Your task to perform on an android device: turn off notifications settings in the gmail app Image 0: 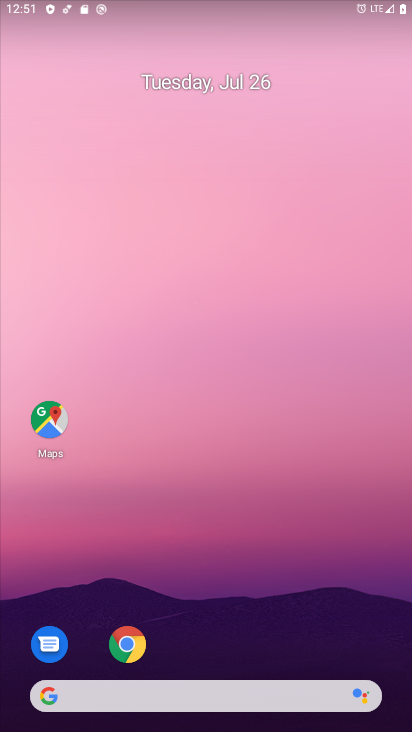
Step 0: drag from (181, 620) to (213, 148)
Your task to perform on an android device: turn off notifications settings in the gmail app Image 1: 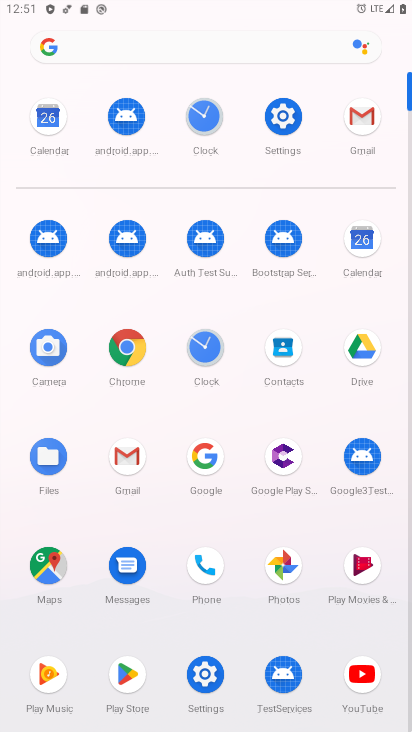
Step 1: click (139, 465)
Your task to perform on an android device: turn off notifications settings in the gmail app Image 2: 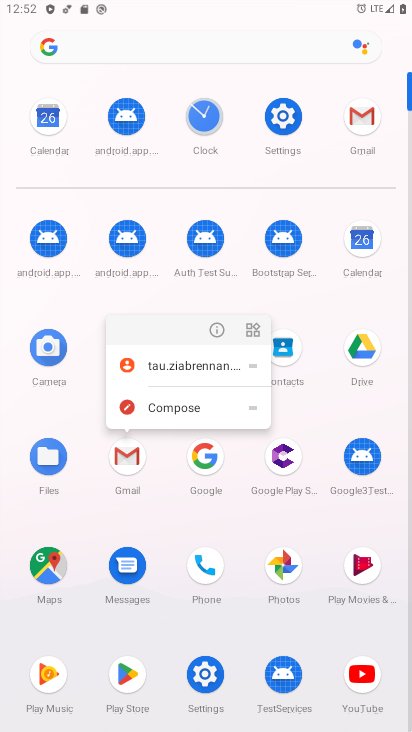
Step 2: click (216, 335)
Your task to perform on an android device: turn off notifications settings in the gmail app Image 3: 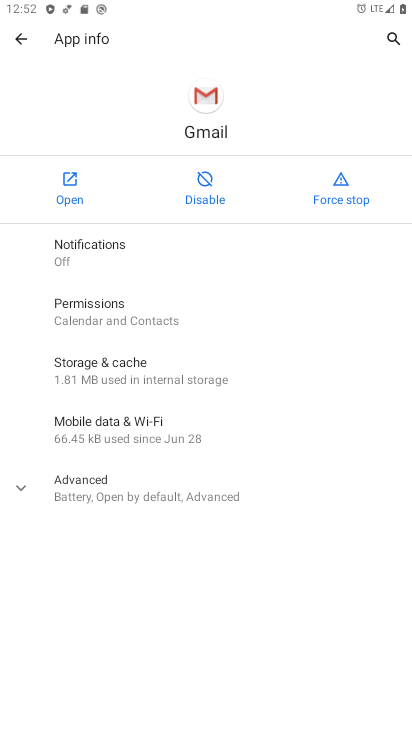
Step 3: click (153, 249)
Your task to perform on an android device: turn off notifications settings in the gmail app Image 4: 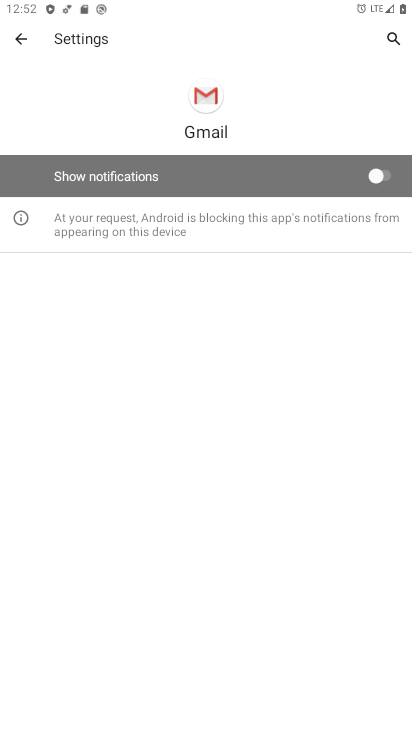
Step 4: task complete